Your task to perform on an android device: turn off notifications in google photos Image 0: 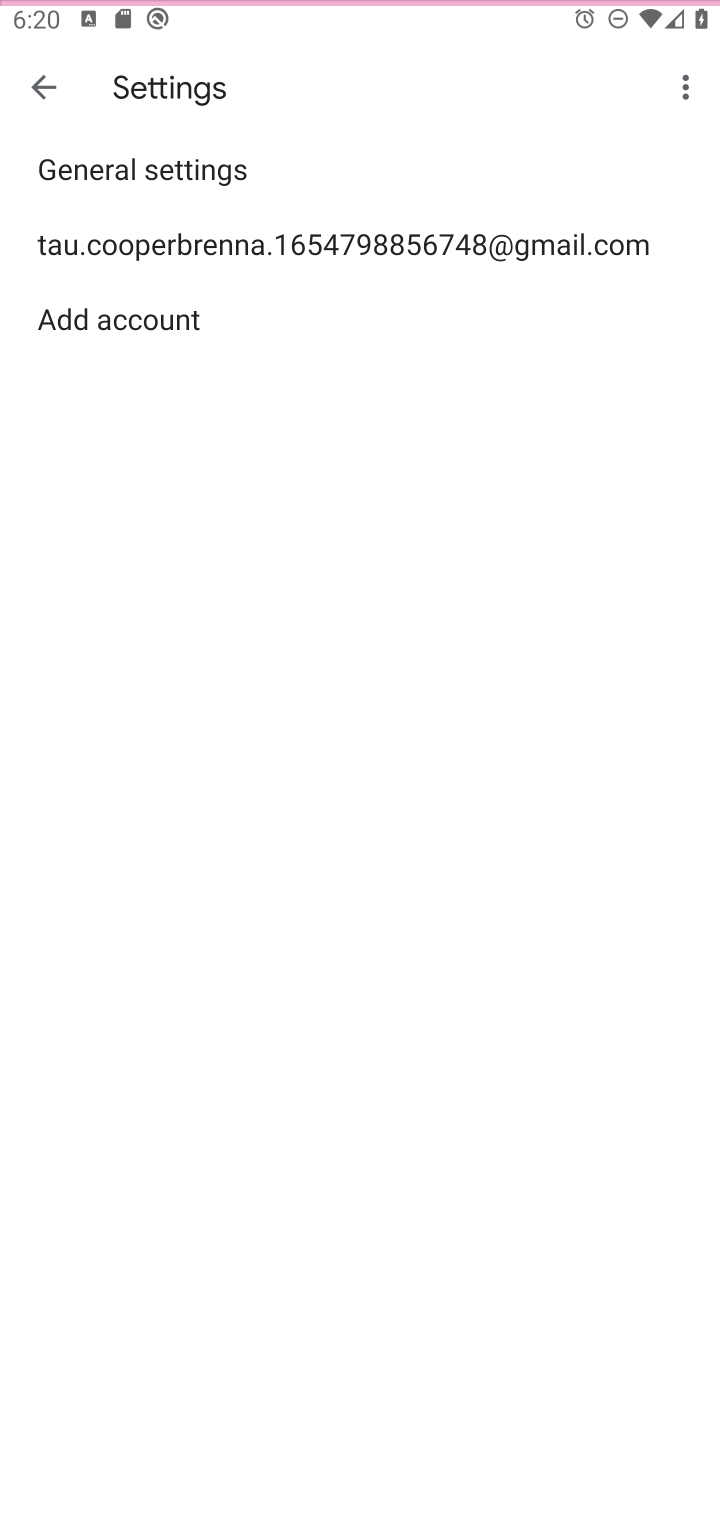
Step 0: press home button
Your task to perform on an android device: turn off notifications in google photos Image 1: 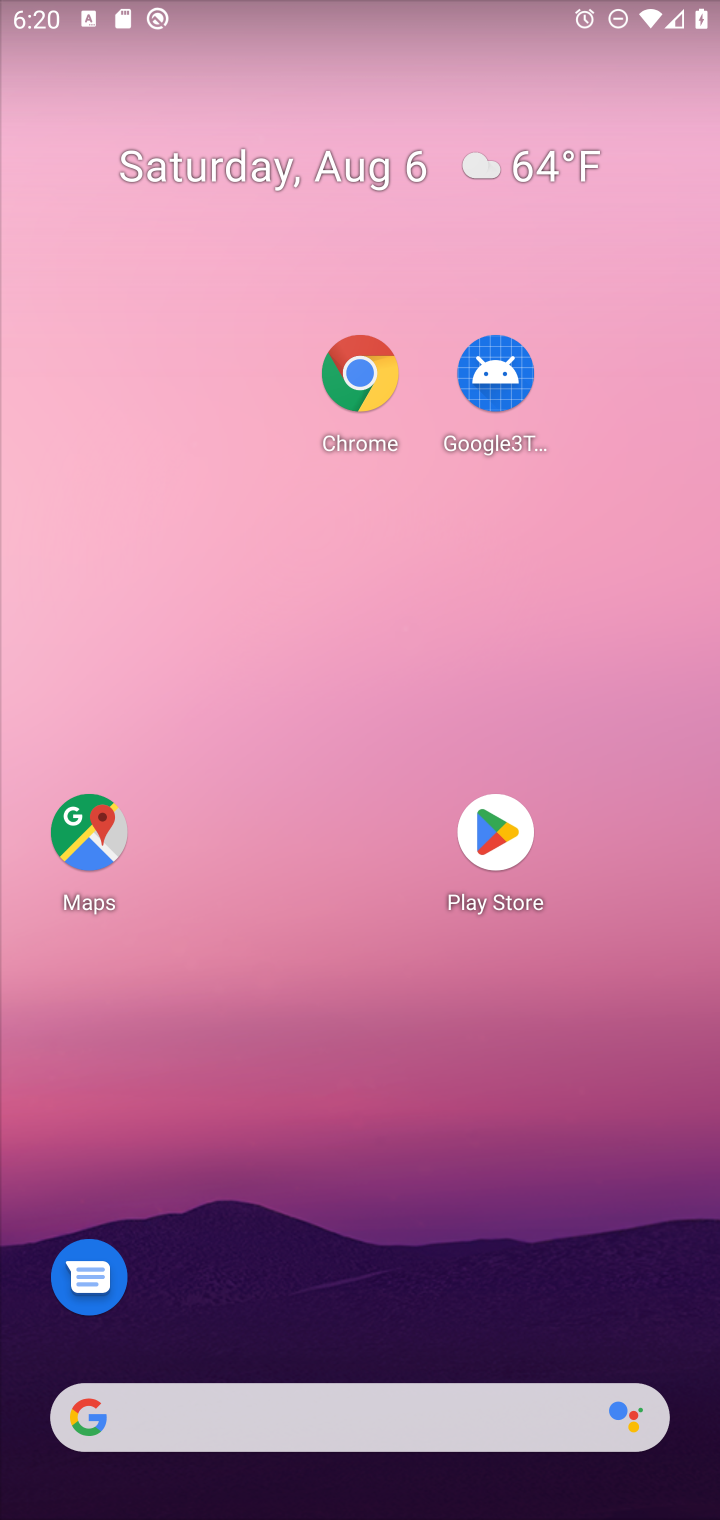
Step 1: drag from (333, 1403) to (522, 12)
Your task to perform on an android device: turn off notifications in google photos Image 2: 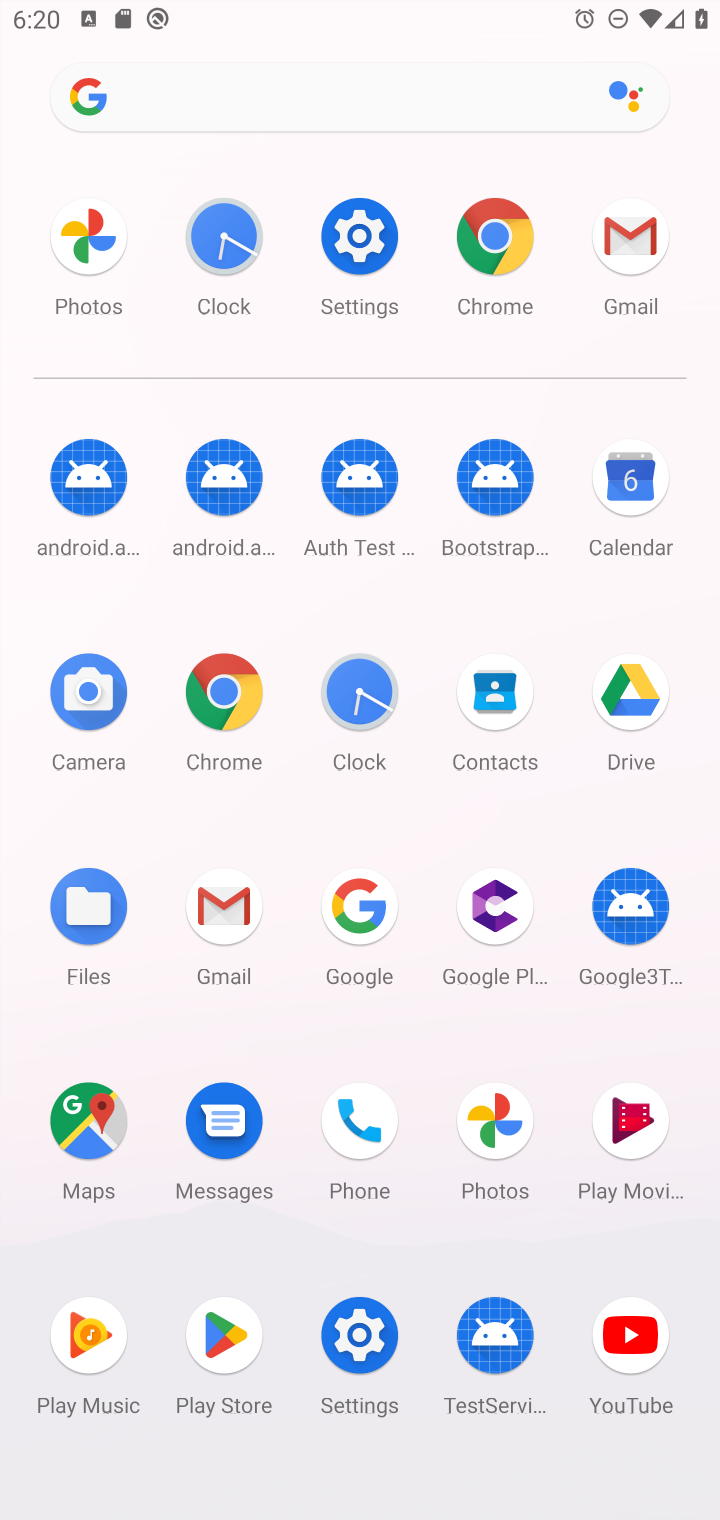
Step 2: click (496, 1129)
Your task to perform on an android device: turn off notifications in google photos Image 3: 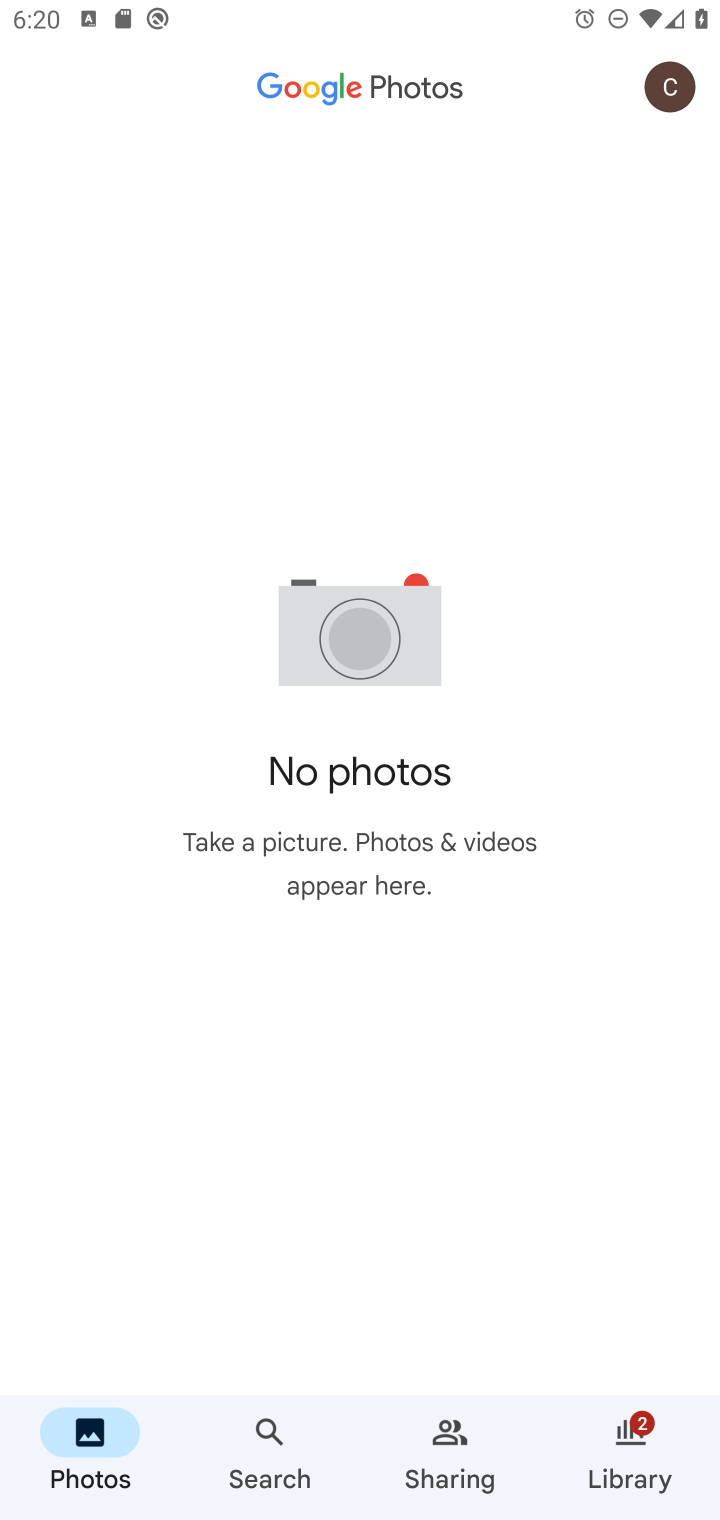
Step 3: task complete